Your task to perform on an android device: What's on my calendar tomorrow? Image 0: 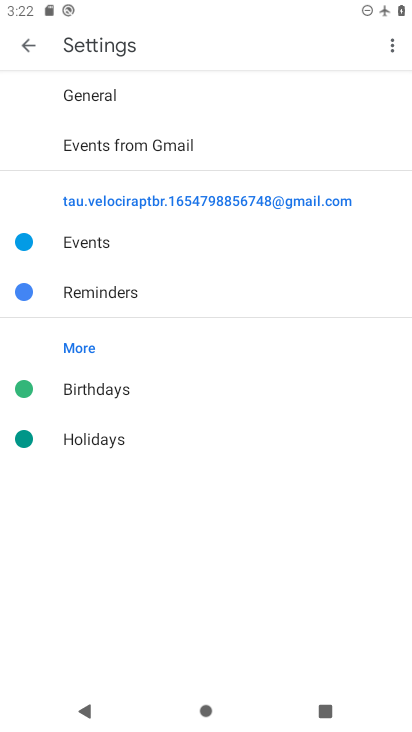
Step 0: press home button
Your task to perform on an android device: What's on my calendar tomorrow? Image 1: 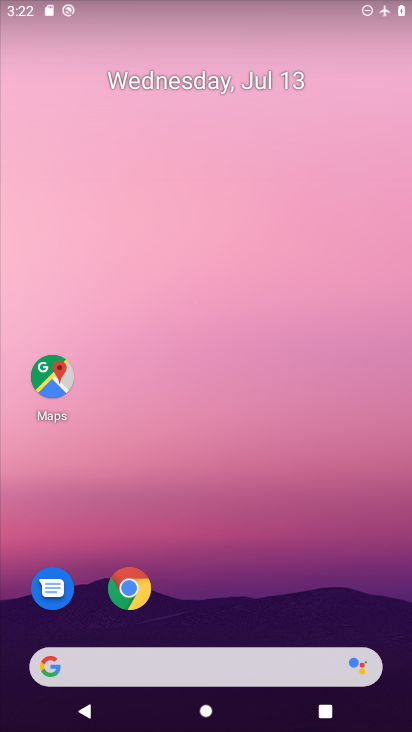
Step 1: drag from (178, 638) to (127, 142)
Your task to perform on an android device: What's on my calendar tomorrow? Image 2: 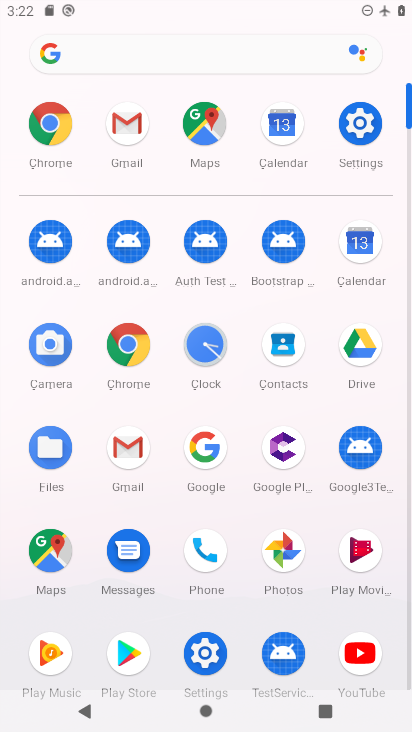
Step 2: click (344, 254)
Your task to perform on an android device: What's on my calendar tomorrow? Image 3: 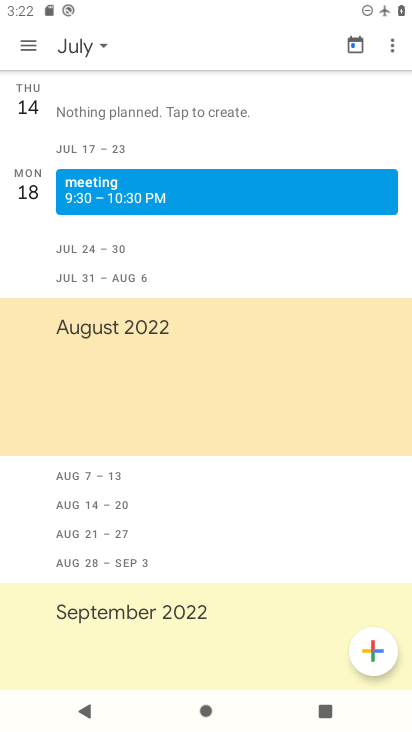
Step 3: click (32, 48)
Your task to perform on an android device: What's on my calendar tomorrow? Image 4: 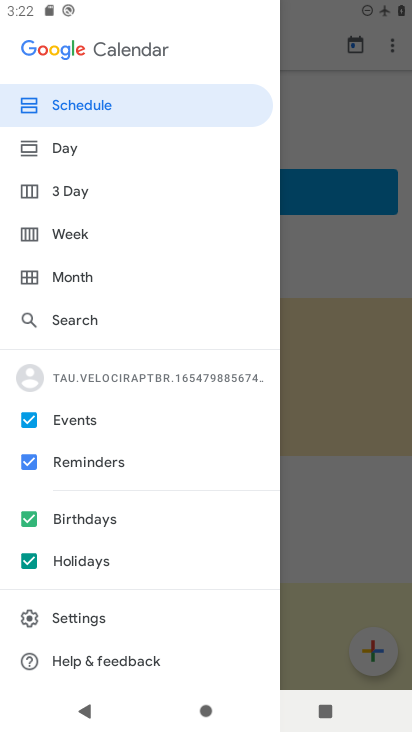
Step 4: click (68, 228)
Your task to perform on an android device: What's on my calendar tomorrow? Image 5: 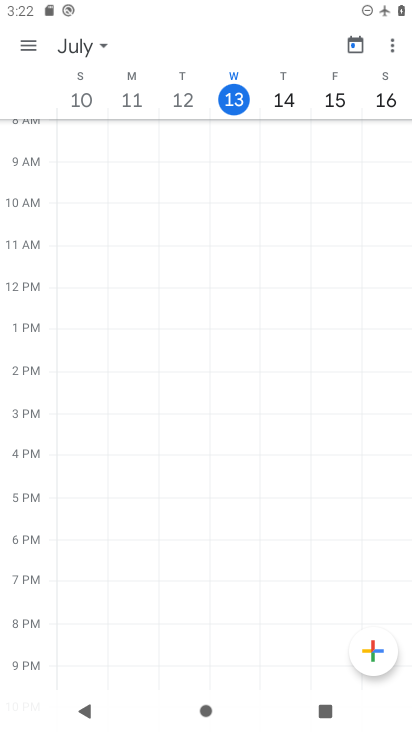
Step 5: click (288, 102)
Your task to perform on an android device: What's on my calendar tomorrow? Image 6: 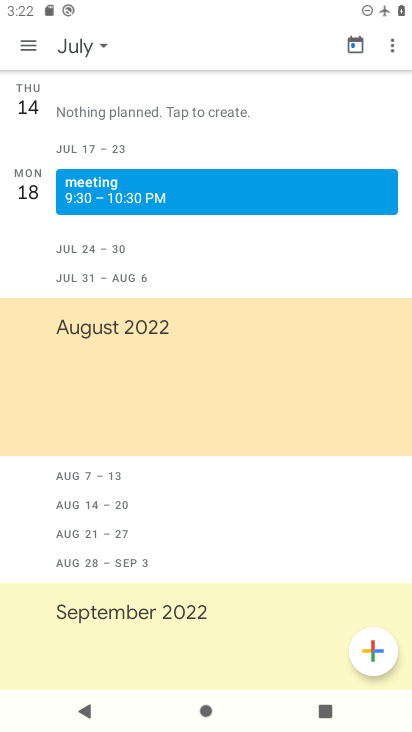
Step 6: task complete